Your task to perform on an android device: change the clock style Image 0: 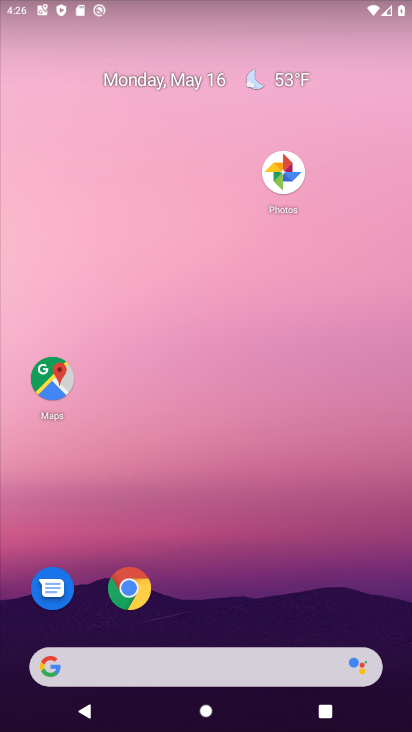
Step 0: drag from (192, 613) to (227, 147)
Your task to perform on an android device: change the clock style Image 1: 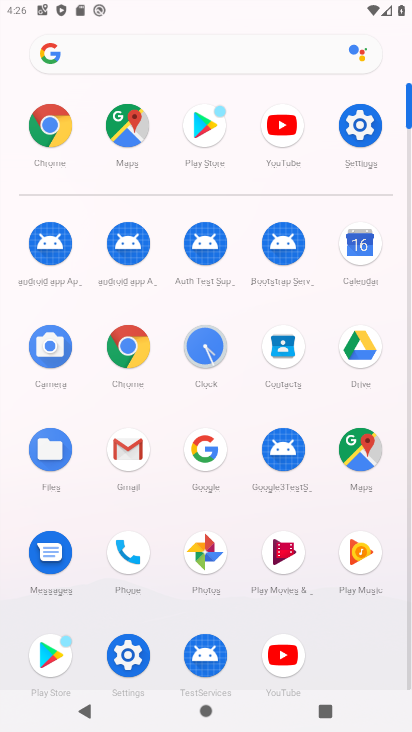
Step 1: click (219, 337)
Your task to perform on an android device: change the clock style Image 2: 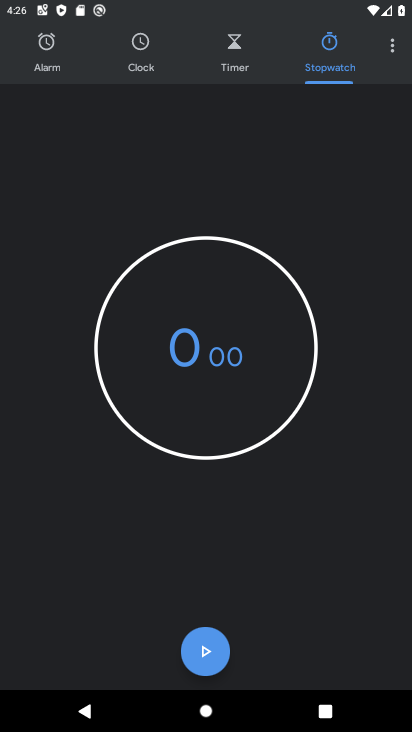
Step 2: click (382, 40)
Your task to perform on an android device: change the clock style Image 3: 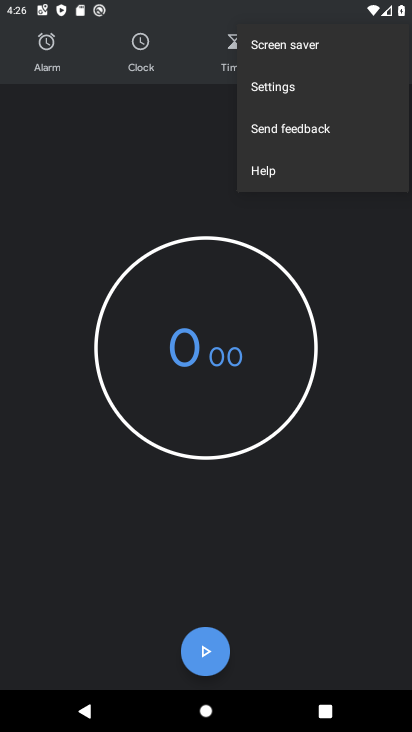
Step 3: click (305, 93)
Your task to perform on an android device: change the clock style Image 4: 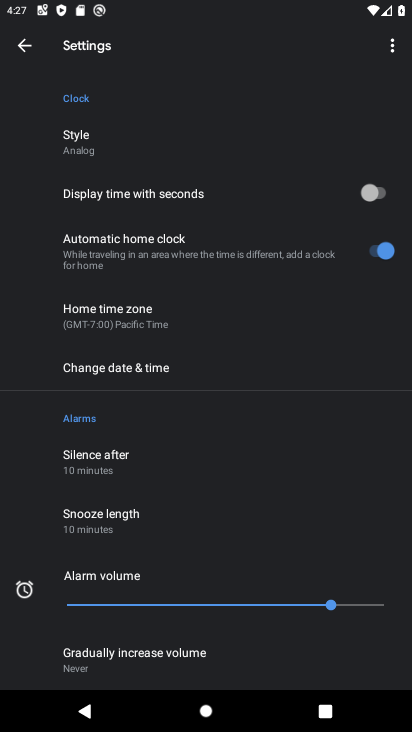
Step 4: click (143, 151)
Your task to perform on an android device: change the clock style Image 5: 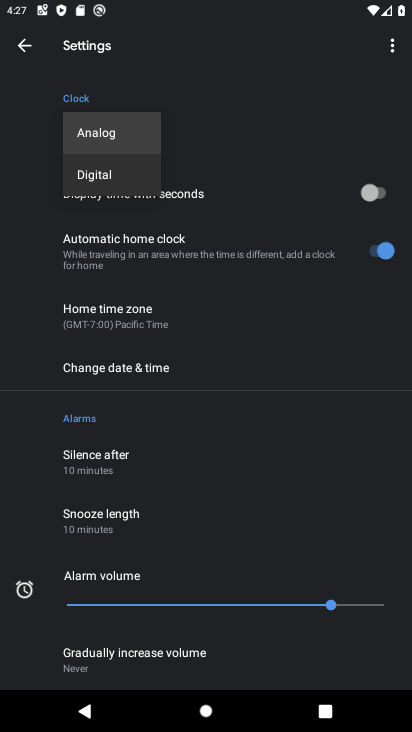
Step 5: click (124, 165)
Your task to perform on an android device: change the clock style Image 6: 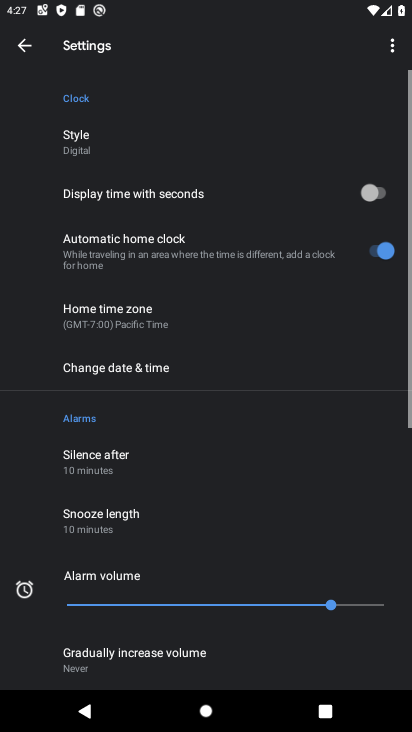
Step 6: task complete